Your task to perform on an android device: Search for sushi restaurants on Maps Image 0: 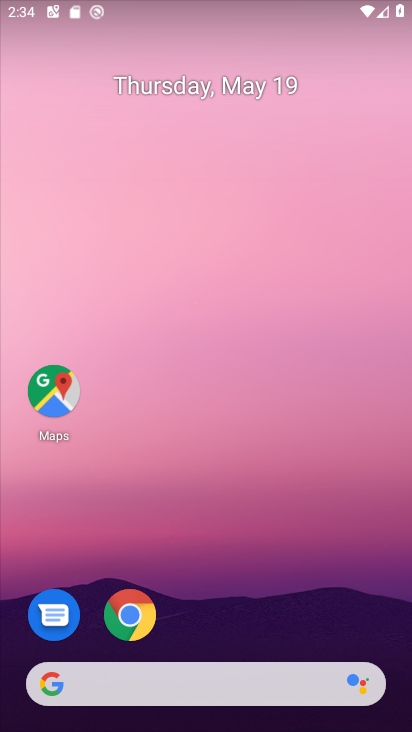
Step 0: drag from (231, 578) to (160, 36)
Your task to perform on an android device: Search for sushi restaurants on Maps Image 1: 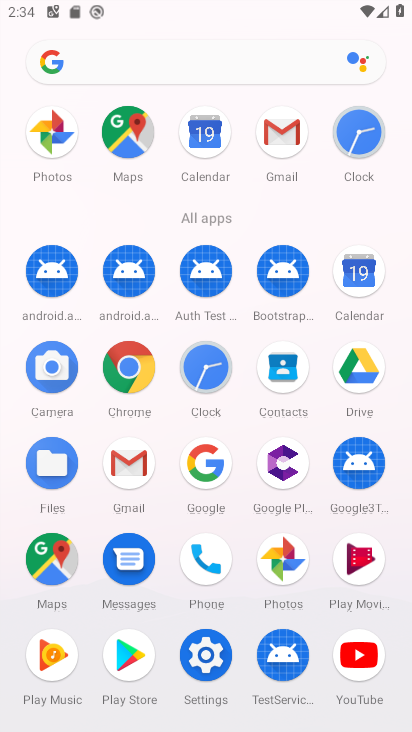
Step 1: drag from (1, 462) to (1, 196)
Your task to perform on an android device: Search for sushi restaurants on Maps Image 2: 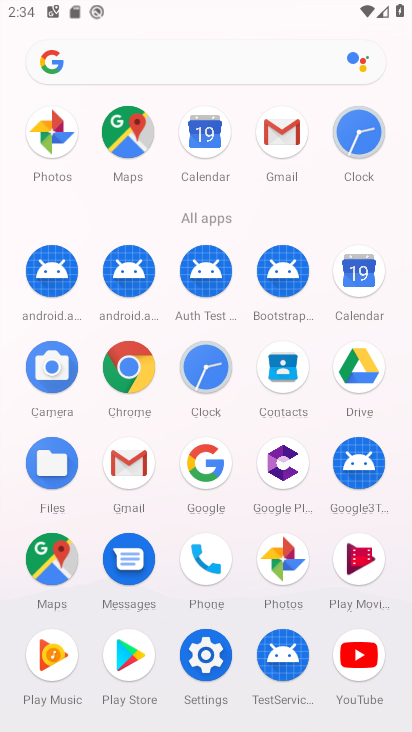
Step 2: click (49, 558)
Your task to perform on an android device: Search for sushi restaurants on Maps Image 3: 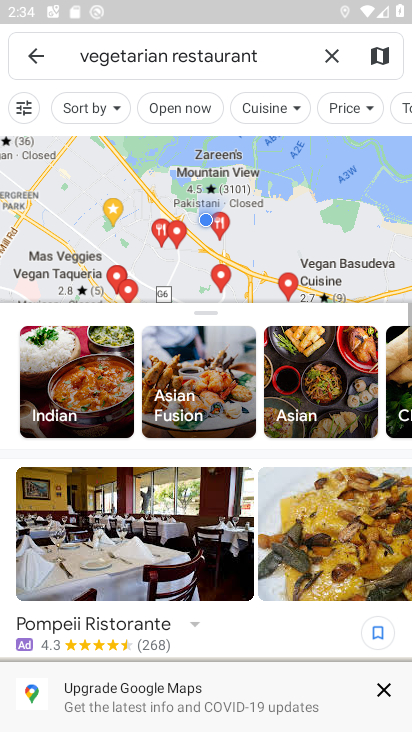
Step 3: click (34, 51)
Your task to perform on an android device: Search for sushi restaurants on Maps Image 4: 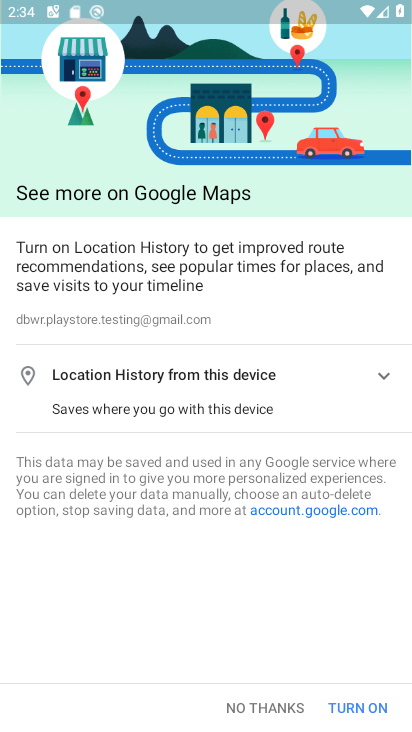
Step 4: click (349, 708)
Your task to perform on an android device: Search for sushi restaurants on Maps Image 5: 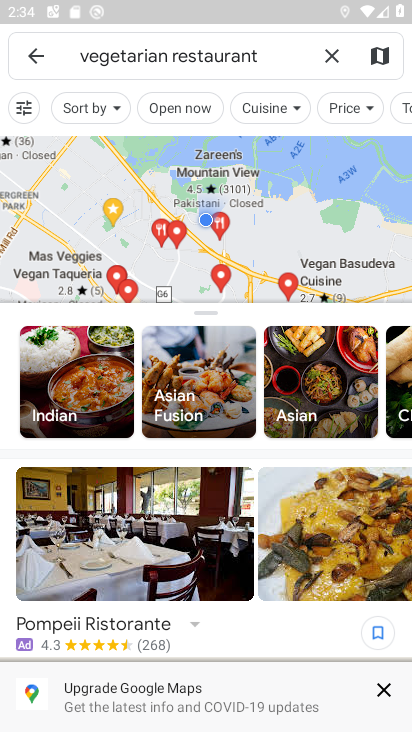
Step 5: click (328, 54)
Your task to perform on an android device: Search for sushi restaurants on Maps Image 6: 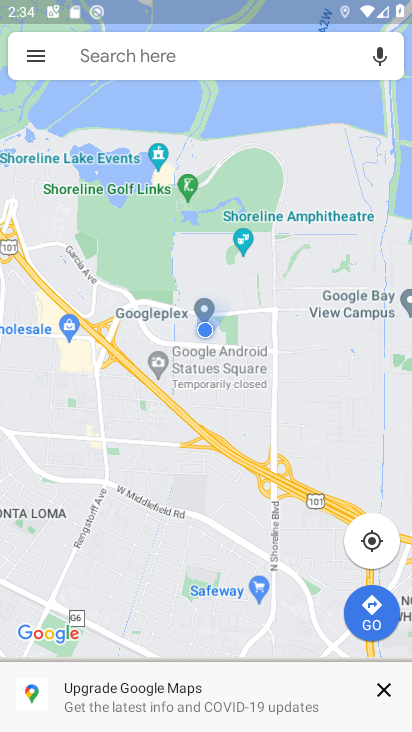
Step 6: click (189, 58)
Your task to perform on an android device: Search for sushi restaurants on Maps Image 7: 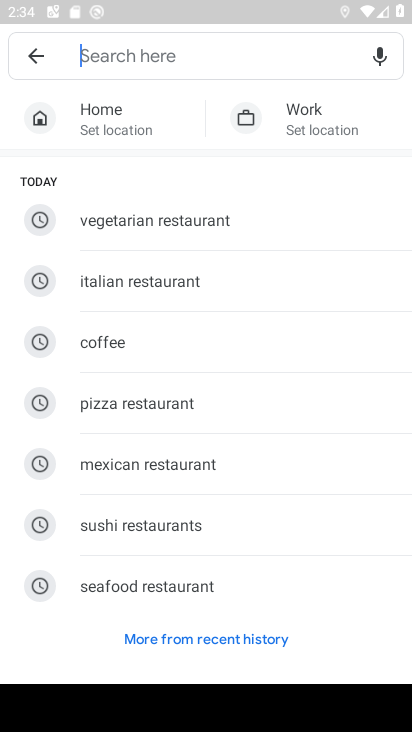
Step 7: click (156, 537)
Your task to perform on an android device: Search for sushi restaurants on Maps Image 8: 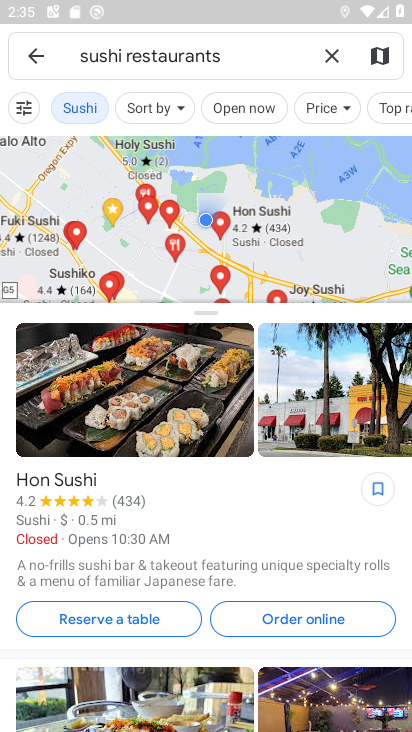
Step 8: task complete